Your task to perform on an android device: manage bookmarks in the chrome app Image 0: 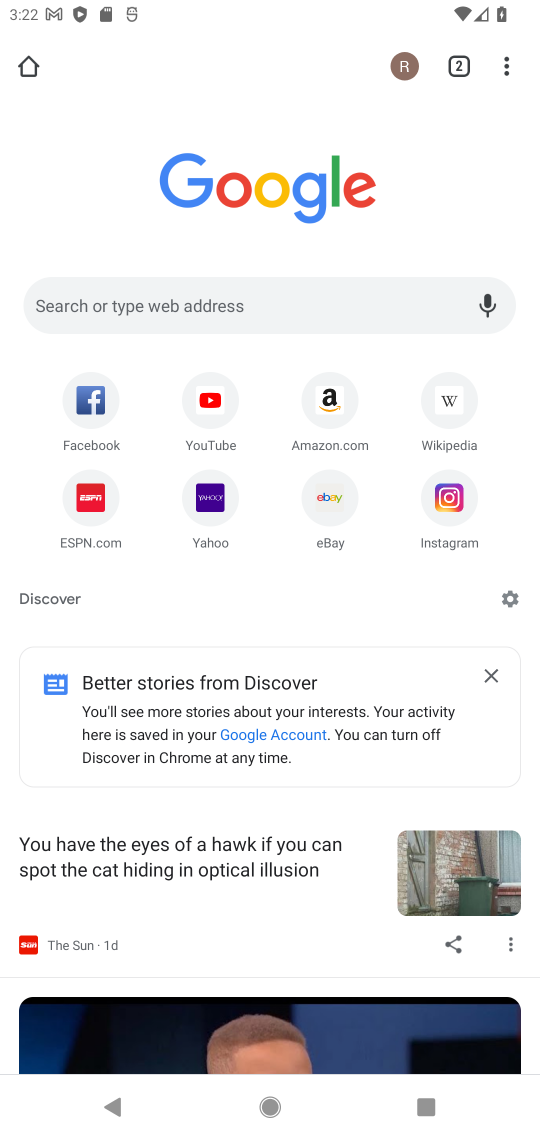
Step 0: press home button
Your task to perform on an android device: manage bookmarks in the chrome app Image 1: 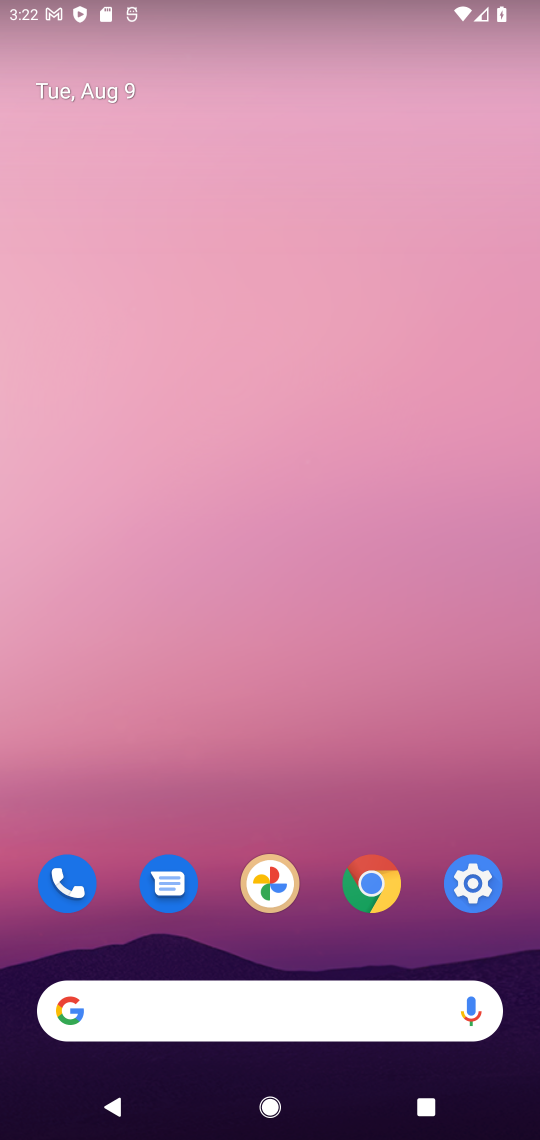
Step 1: drag from (347, 1095) to (300, 304)
Your task to perform on an android device: manage bookmarks in the chrome app Image 2: 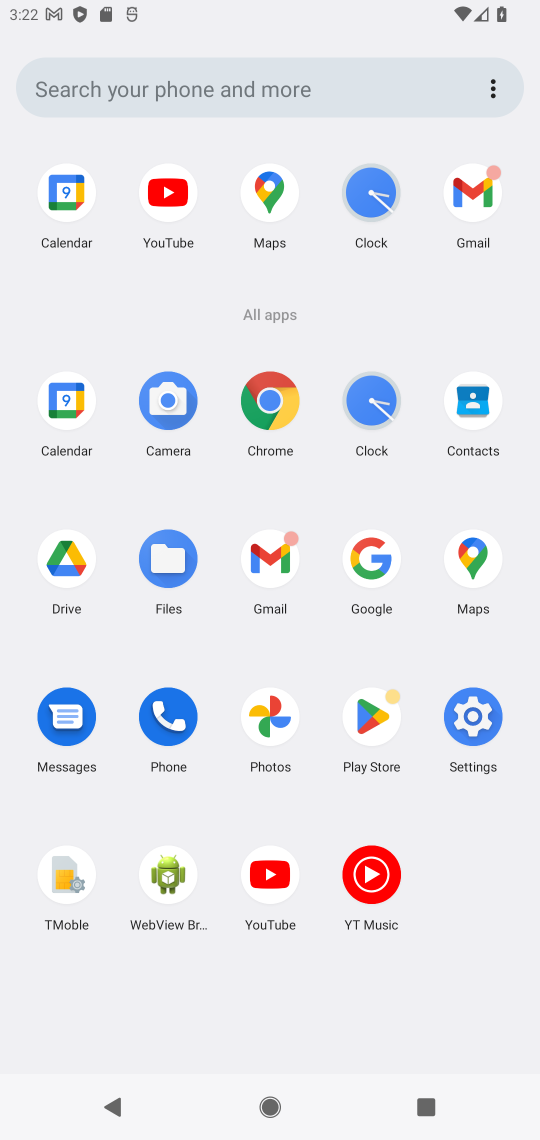
Step 2: click (270, 411)
Your task to perform on an android device: manage bookmarks in the chrome app Image 3: 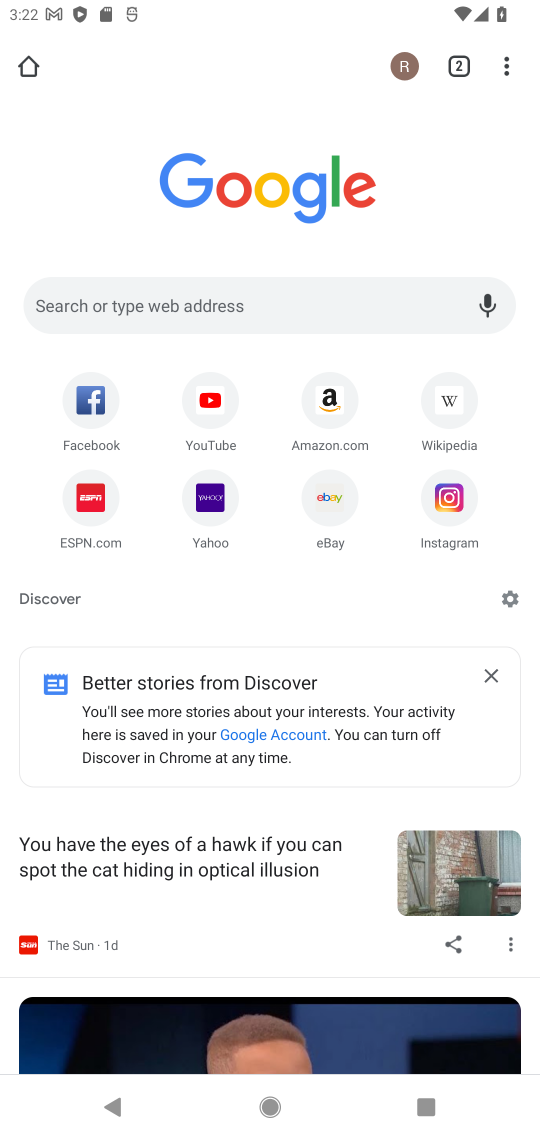
Step 3: click (508, 71)
Your task to perform on an android device: manage bookmarks in the chrome app Image 4: 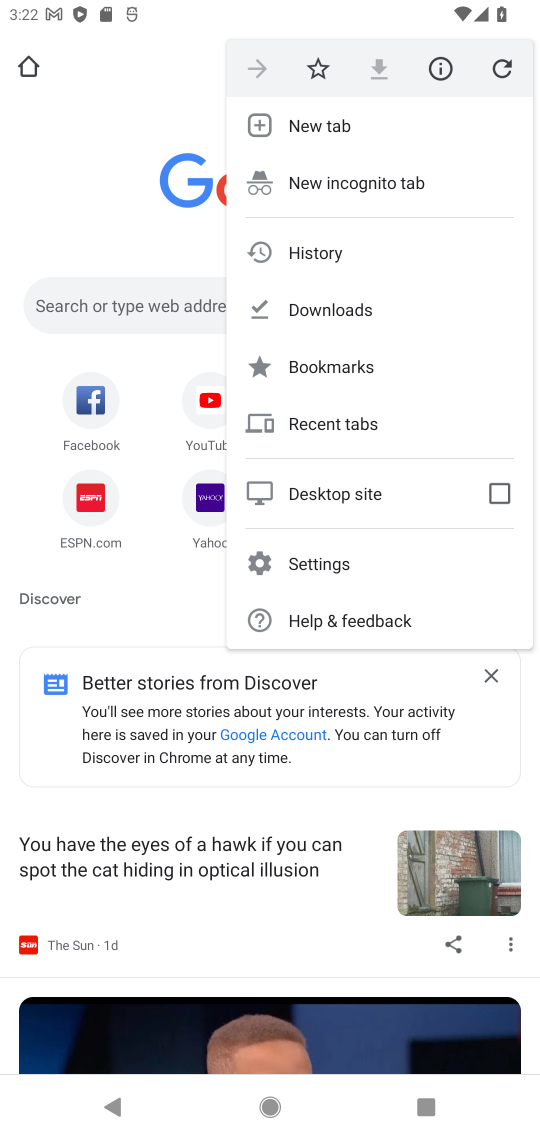
Step 4: click (310, 369)
Your task to perform on an android device: manage bookmarks in the chrome app Image 5: 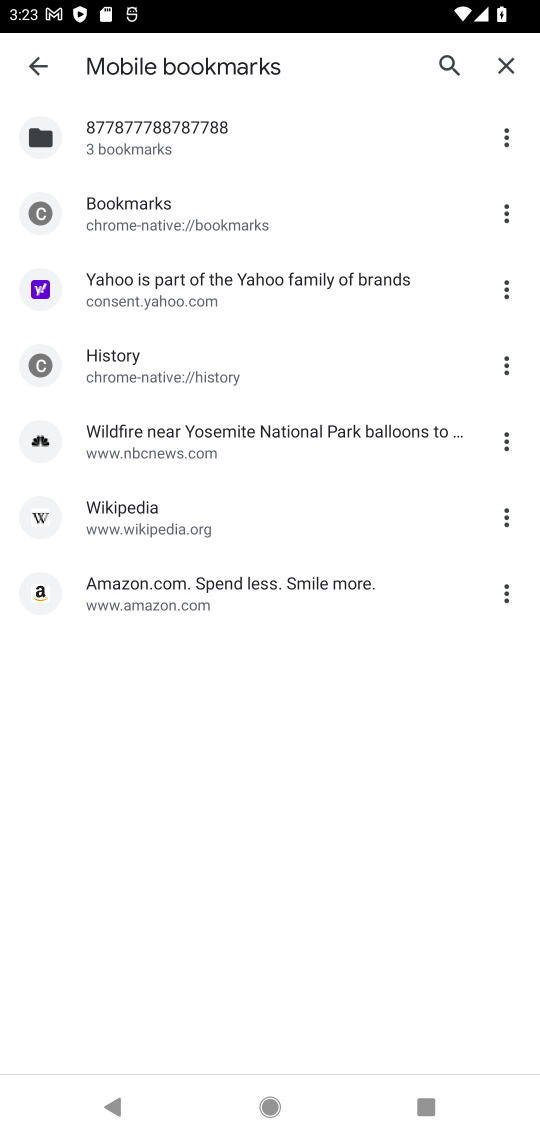
Step 5: task complete